Your task to perform on an android device: open app "Microsoft Authenticator" (install if not already installed) Image 0: 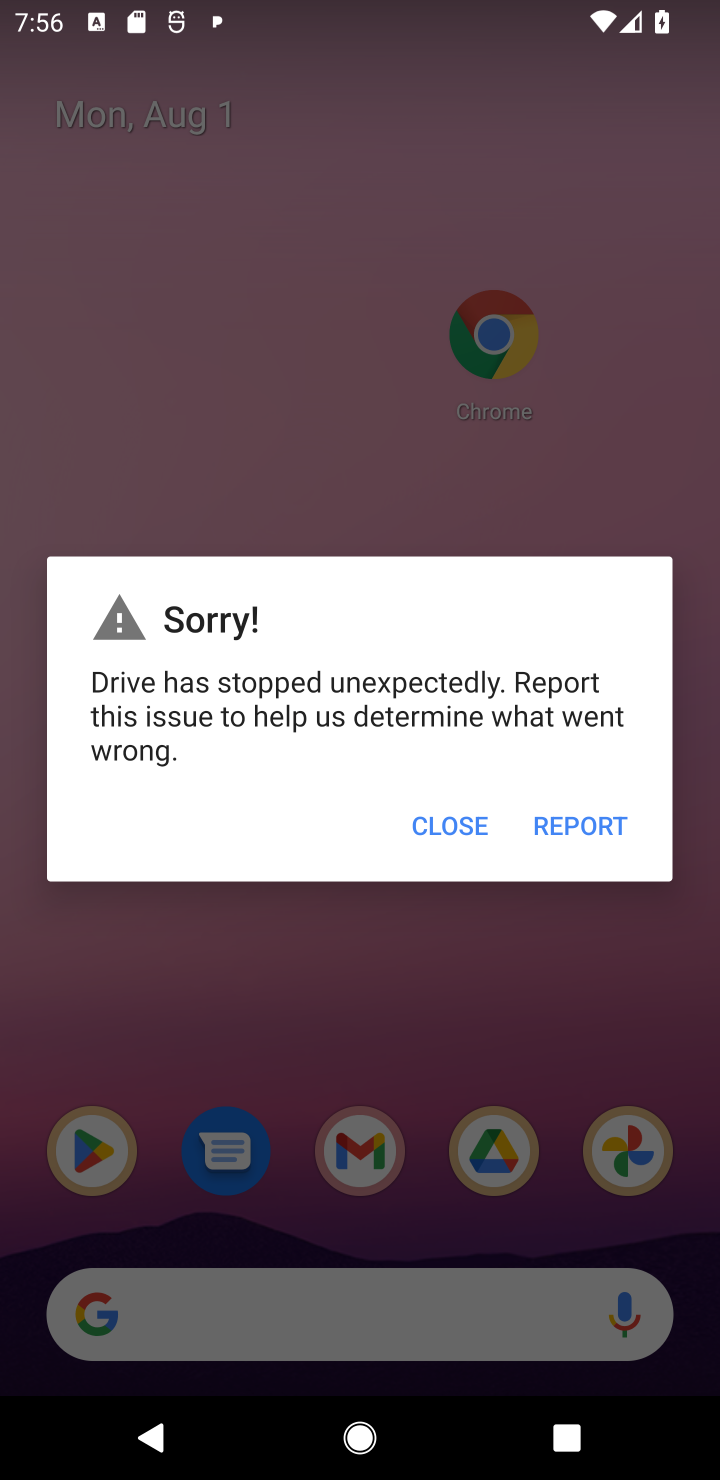
Step 0: press home button
Your task to perform on an android device: open app "Microsoft Authenticator" (install if not already installed) Image 1: 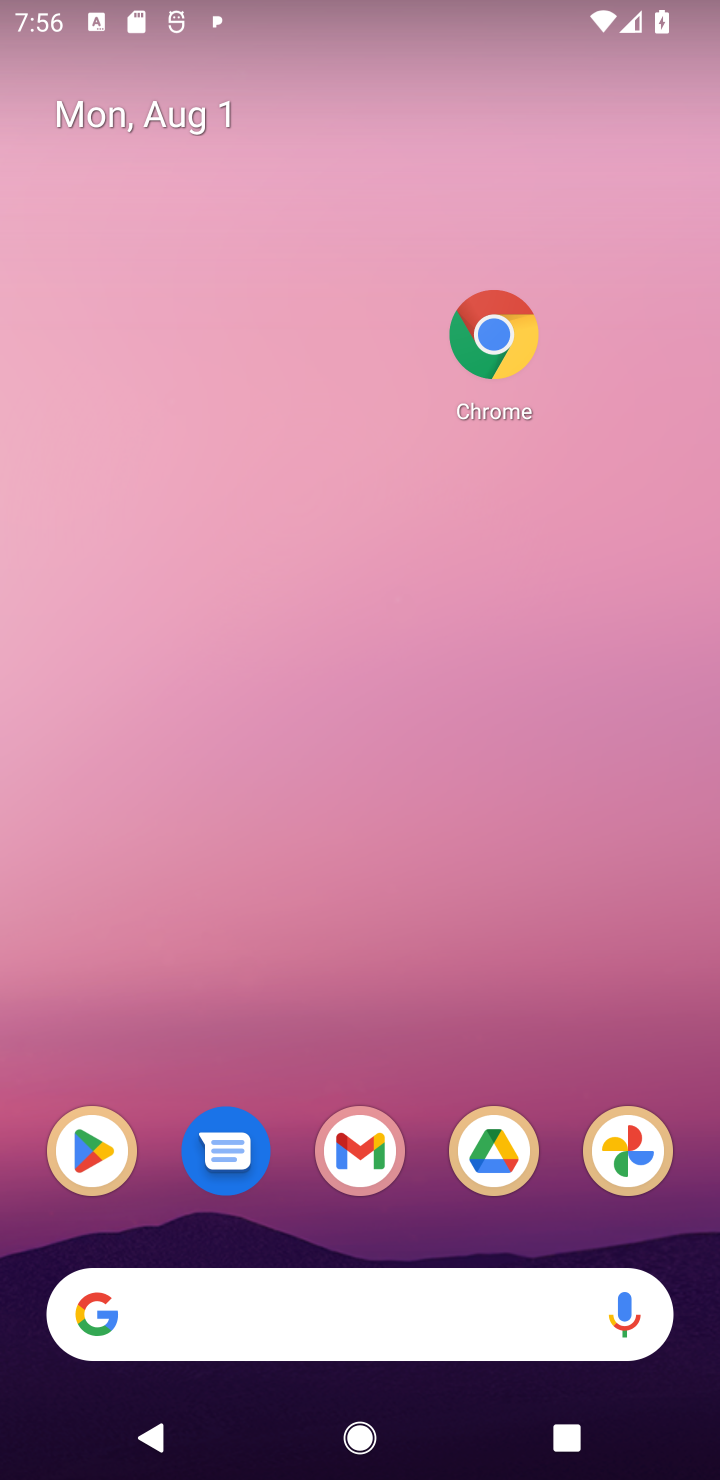
Step 1: click (85, 1156)
Your task to perform on an android device: open app "Microsoft Authenticator" (install if not already installed) Image 2: 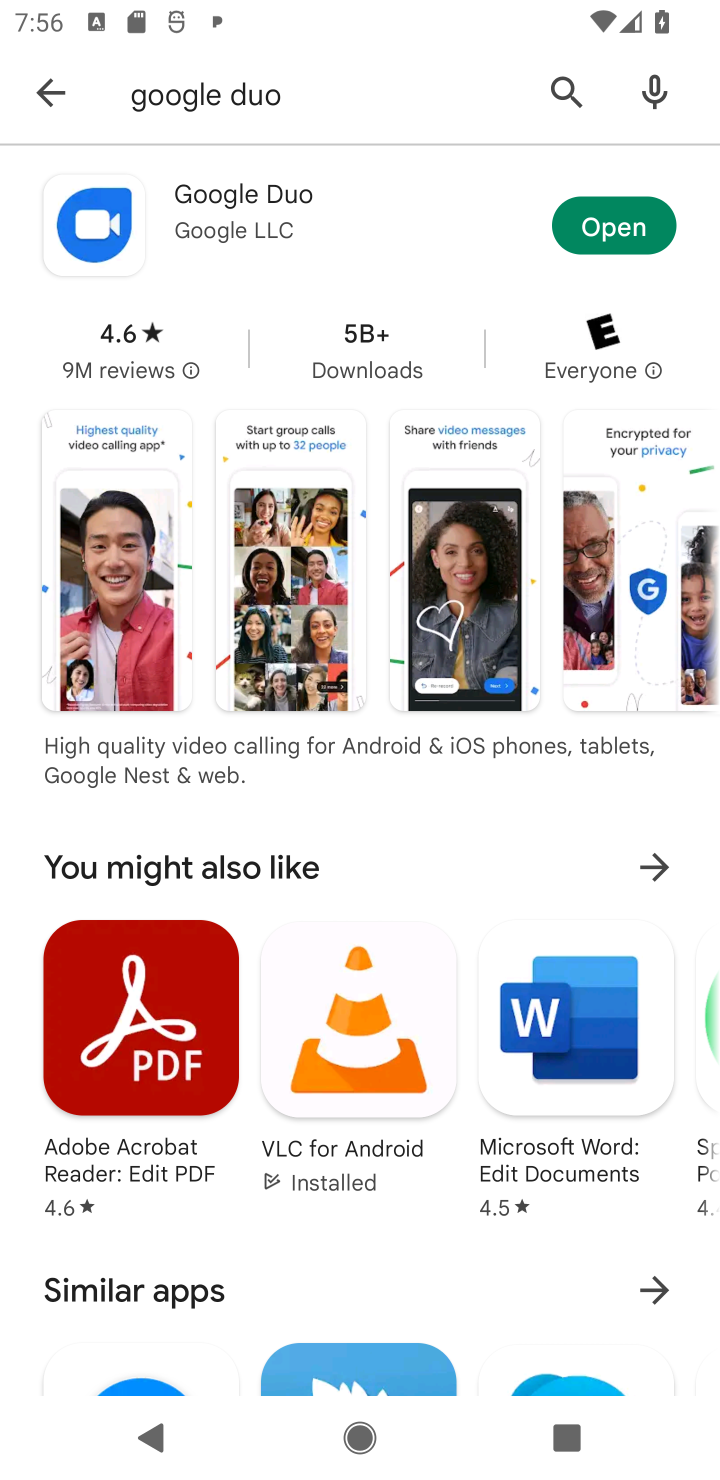
Step 2: click (568, 87)
Your task to perform on an android device: open app "Microsoft Authenticator" (install if not already installed) Image 3: 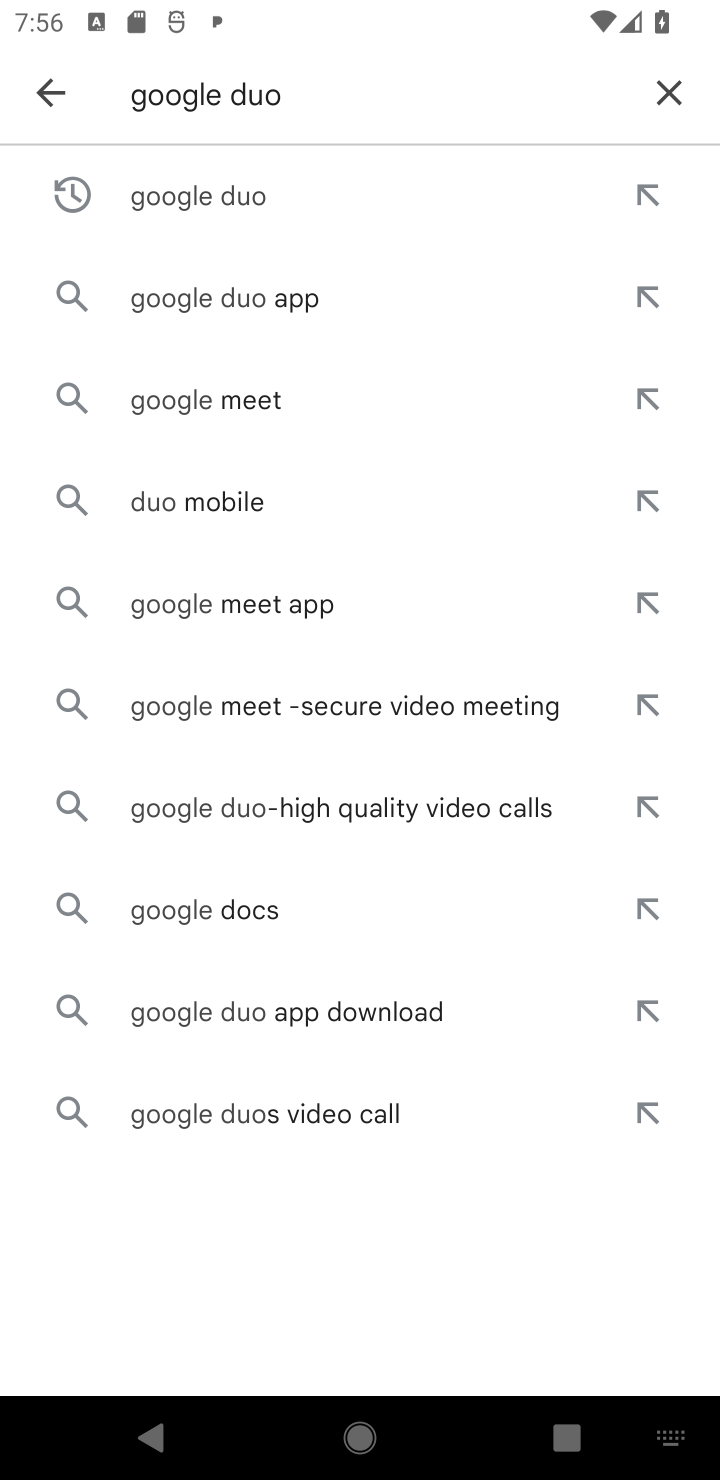
Step 3: click (661, 96)
Your task to perform on an android device: open app "Microsoft Authenticator" (install if not already installed) Image 4: 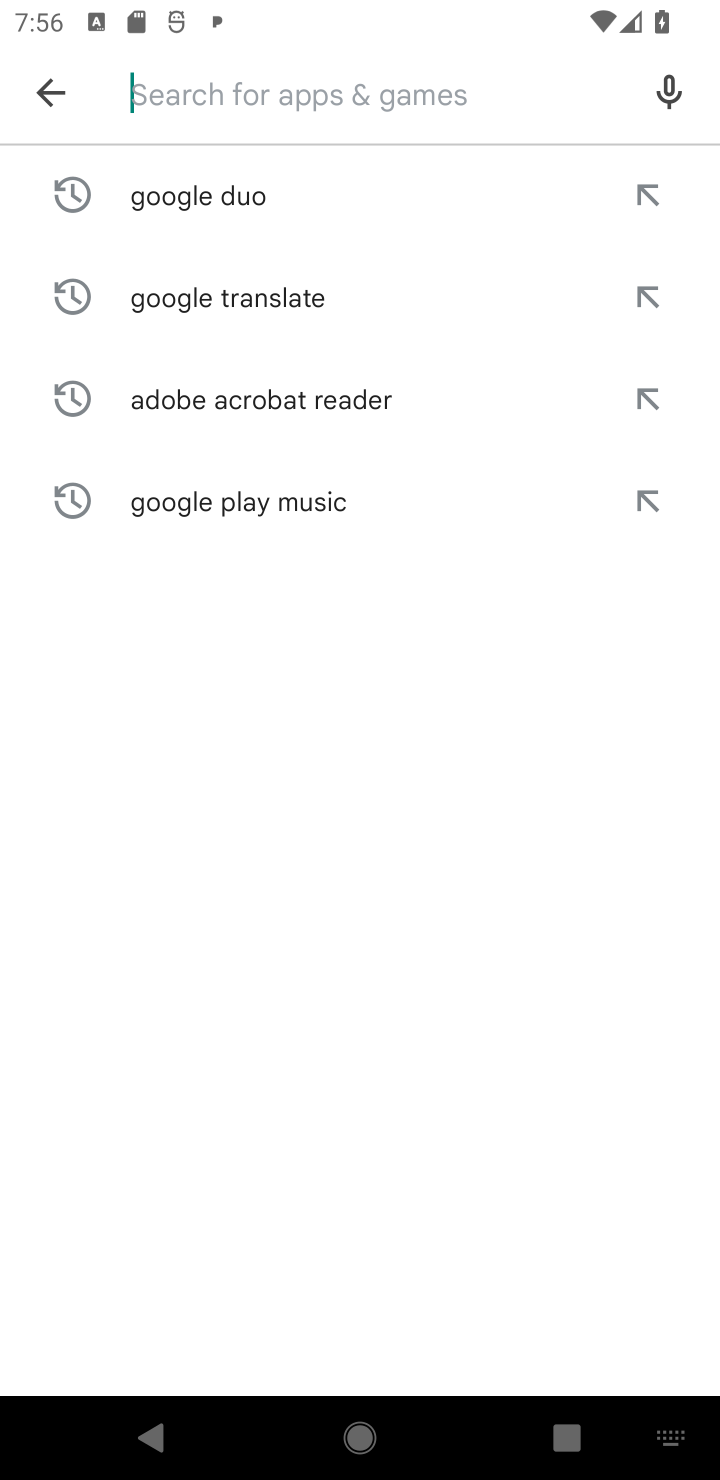
Step 4: type "Microsoft Authenticator"
Your task to perform on an android device: open app "Microsoft Authenticator" (install if not already installed) Image 5: 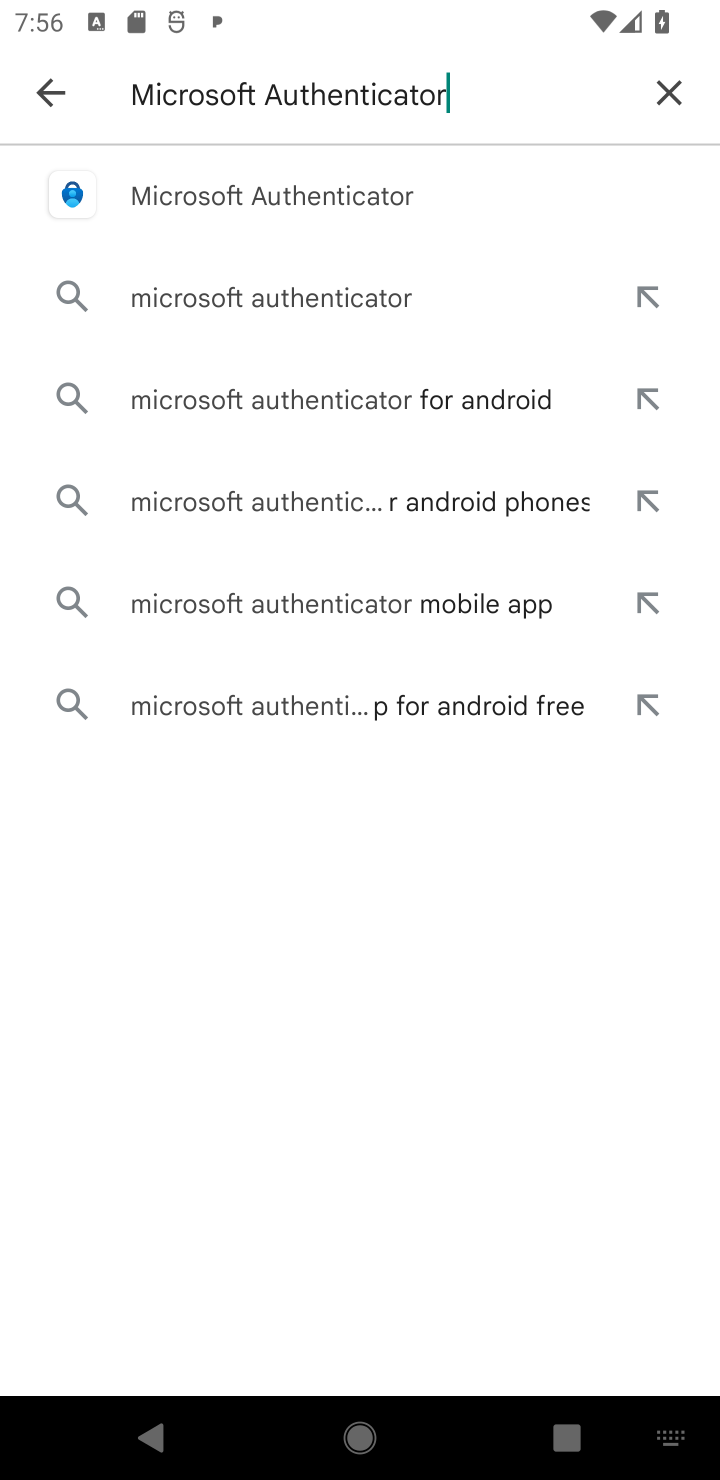
Step 5: click (214, 199)
Your task to perform on an android device: open app "Microsoft Authenticator" (install if not already installed) Image 6: 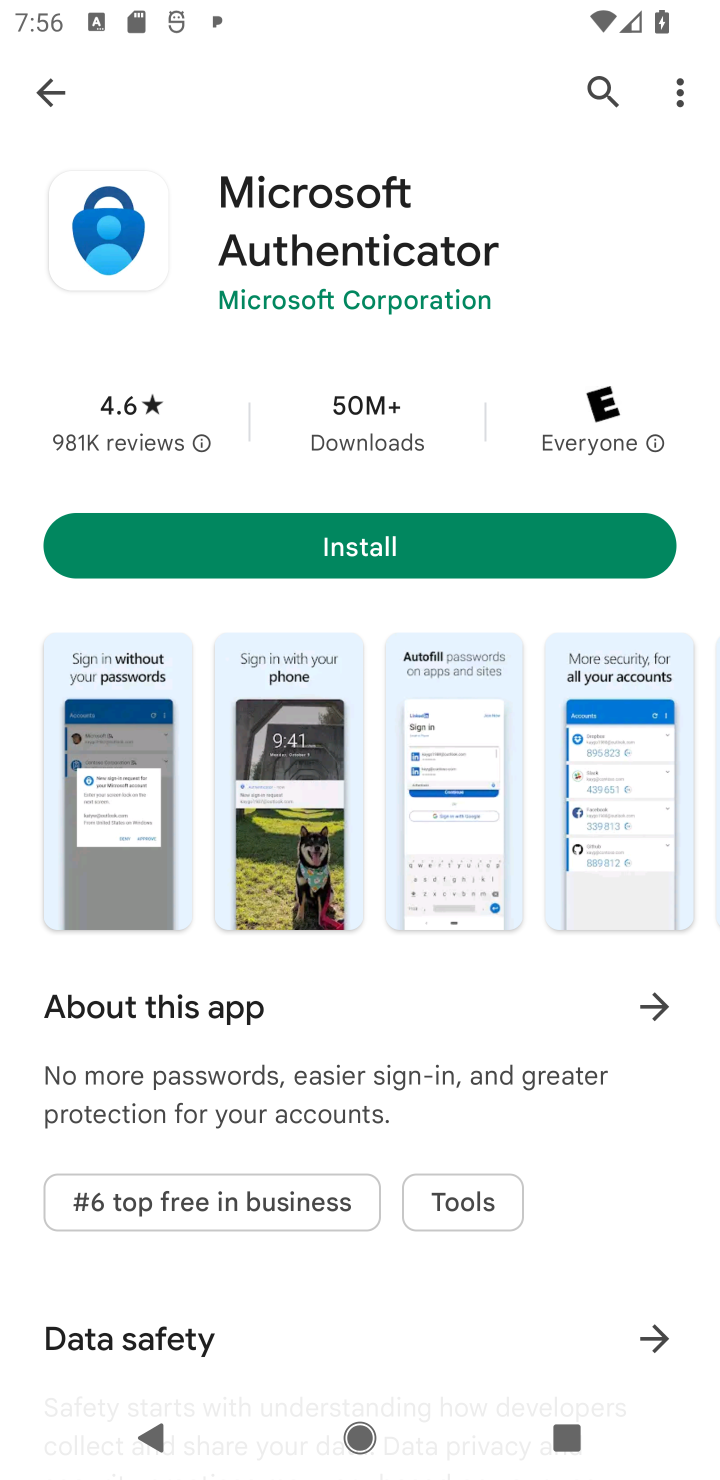
Step 6: click (349, 530)
Your task to perform on an android device: open app "Microsoft Authenticator" (install if not already installed) Image 7: 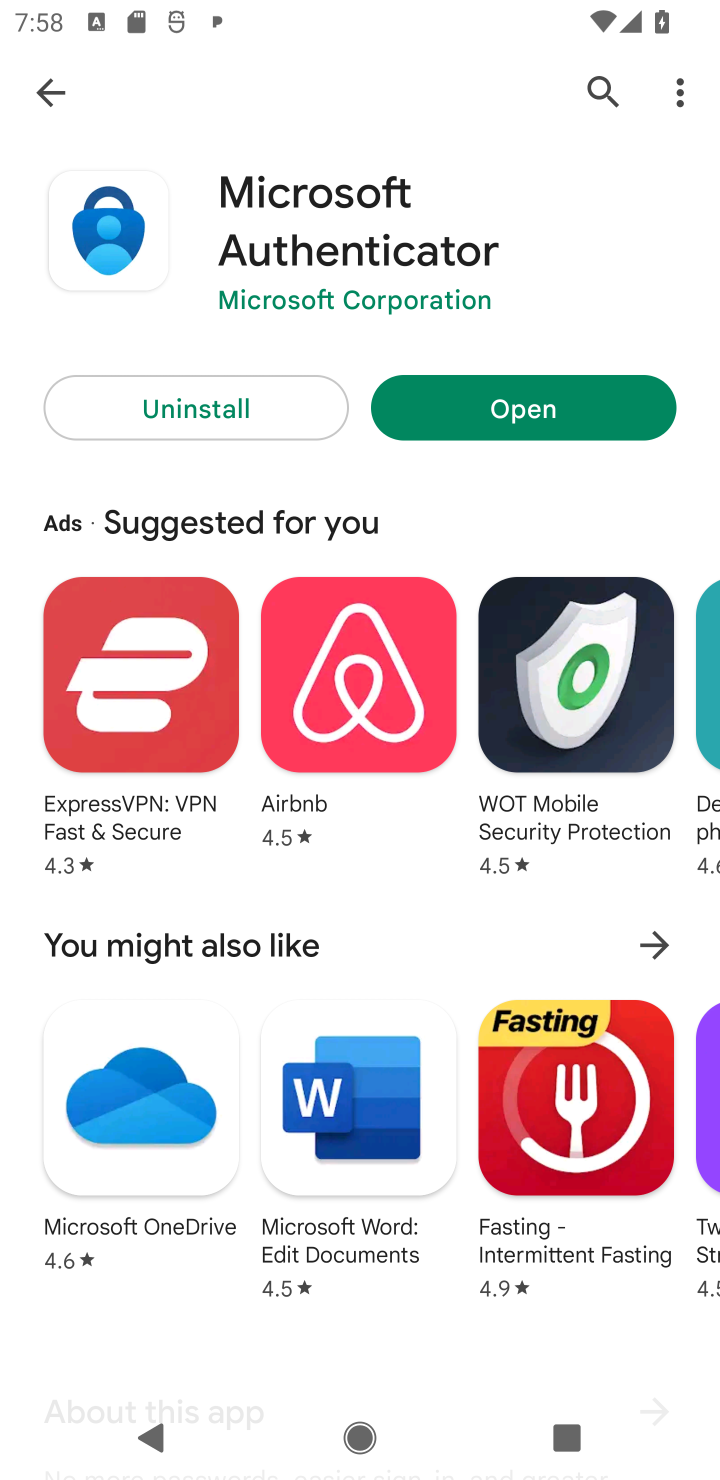
Step 7: click (491, 426)
Your task to perform on an android device: open app "Microsoft Authenticator" (install if not already installed) Image 8: 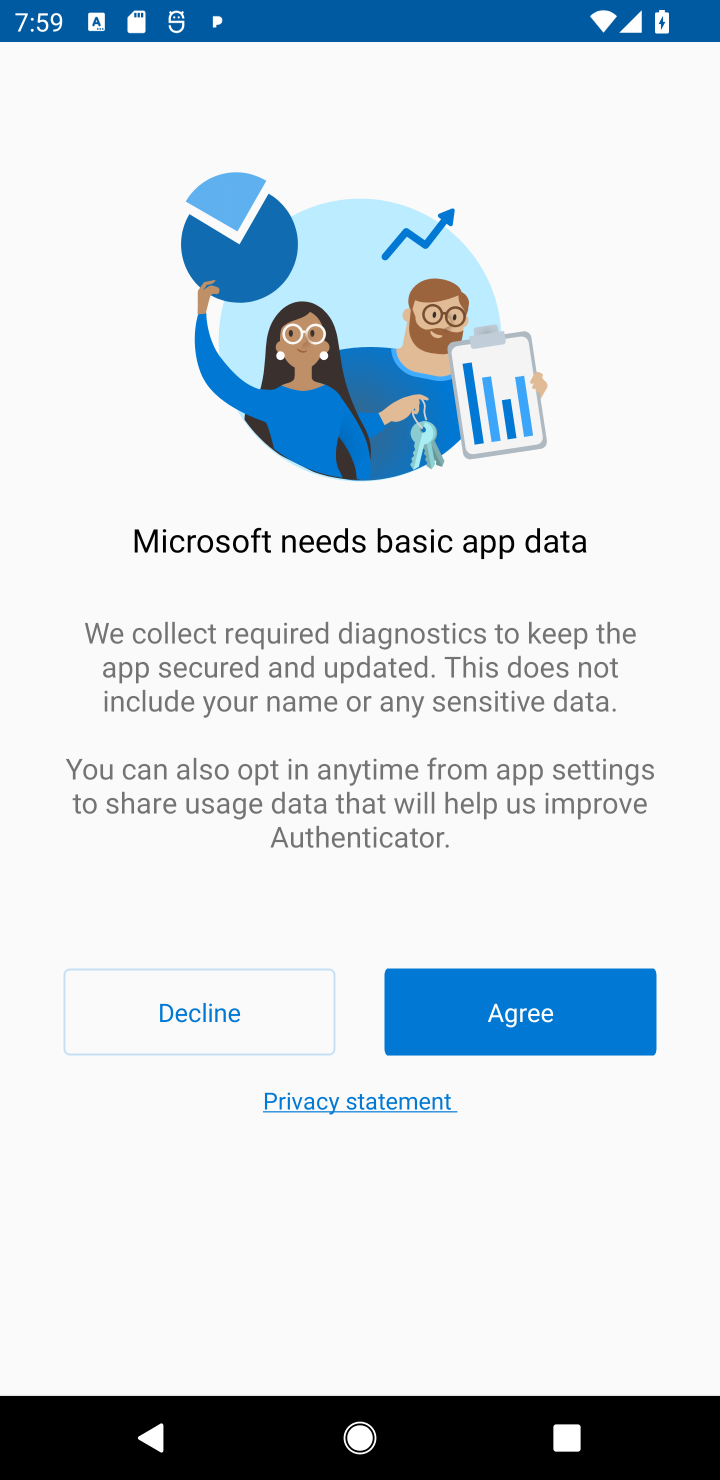
Step 8: task complete